Your task to perform on an android device: What's a good restaurant in San Jose? Image 0: 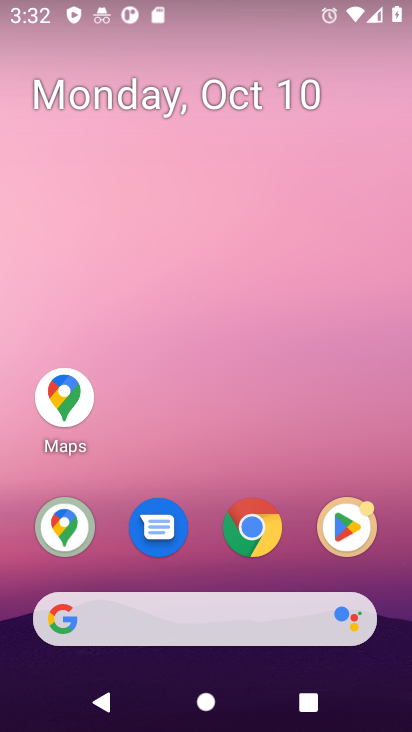
Step 0: click (67, 390)
Your task to perform on an android device: What's a good restaurant in San Jose? Image 1: 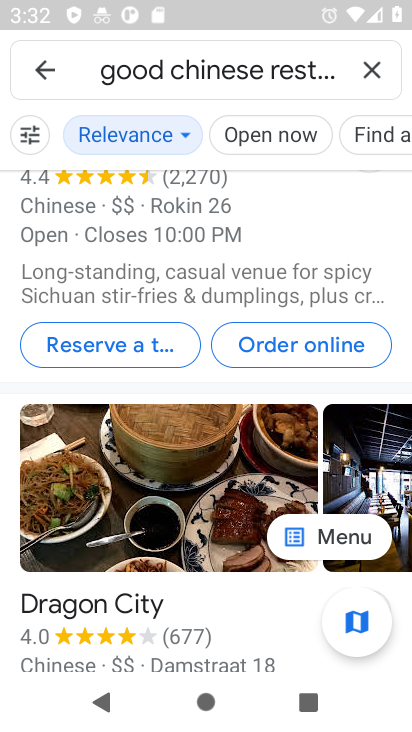
Step 1: click (373, 70)
Your task to perform on an android device: What's a good restaurant in San Jose? Image 2: 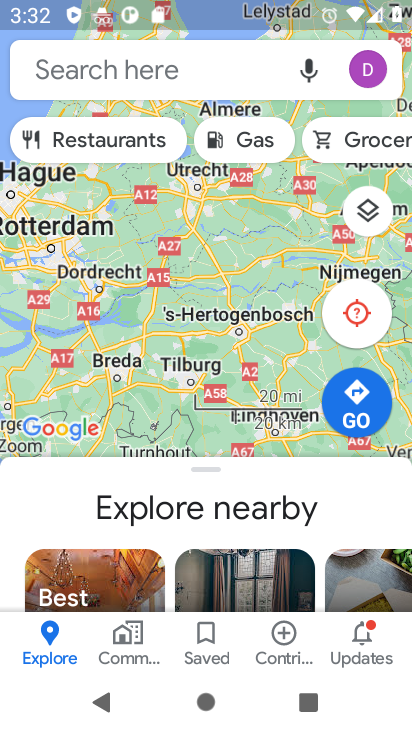
Step 2: click (205, 66)
Your task to perform on an android device: What's a good restaurant in San Jose? Image 3: 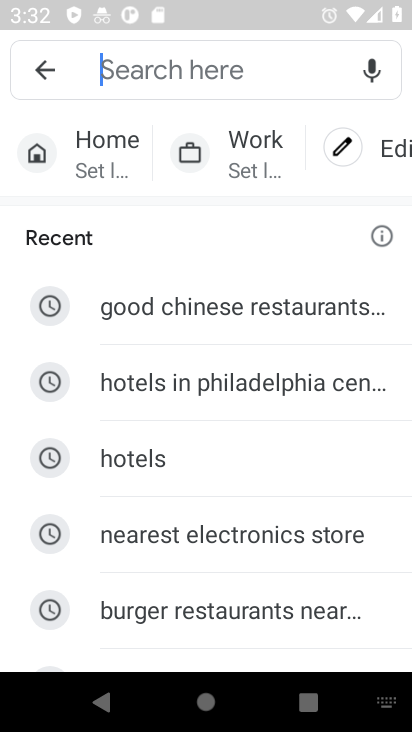
Step 3: type "good restaurants in San Jose"
Your task to perform on an android device: What's a good restaurant in San Jose? Image 4: 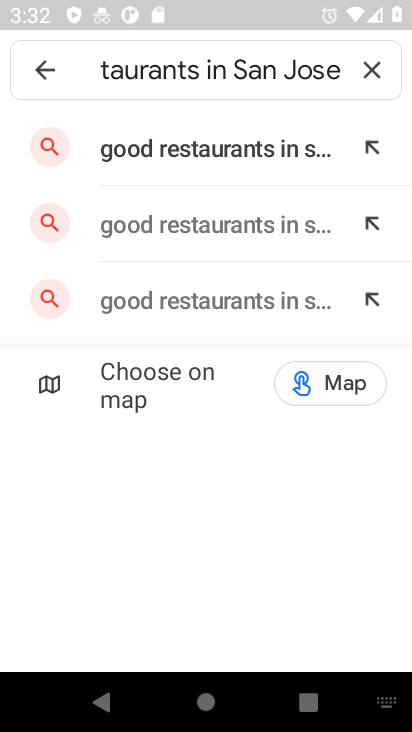
Step 4: click (286, 152)
Your task to perform on an android device: What's a good restaurant in San Jose? Image 5: 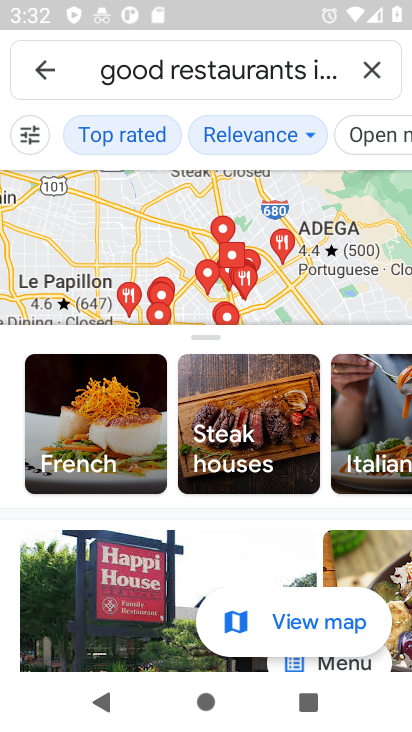
Step 5: task complete